Your task to perform on an android device: What's the weather going to be this weekend? Image 0: 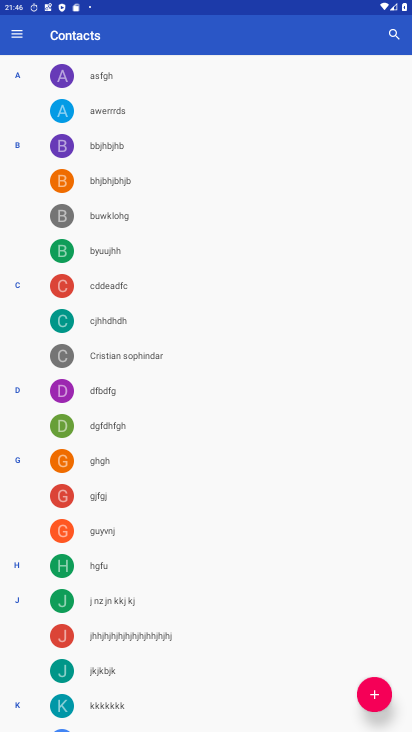
Step 0: press home button
Your task to perform on an android device: What's the weather going to be this weekend? Image 1: 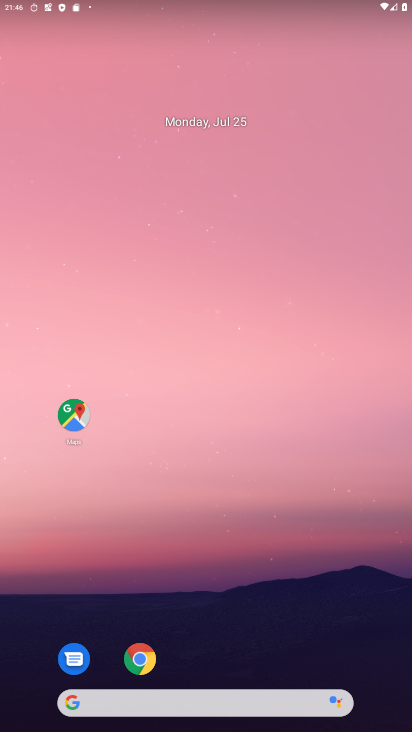
Step 1: drag from (210, 656) to (221, 247)
Your task to perform on an android device: What's the weather going to be this weekend? Image 2: 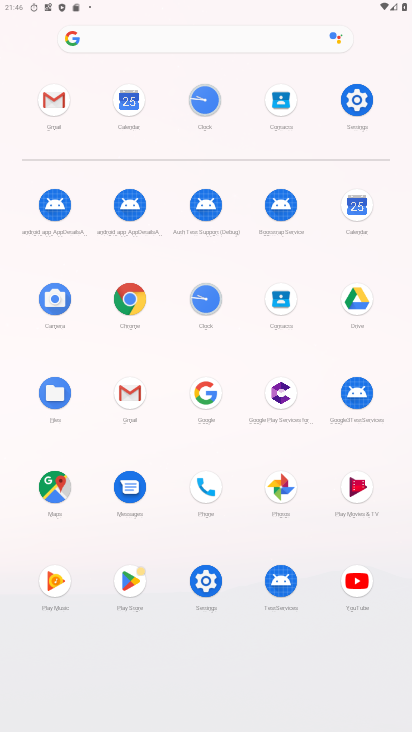
Step 2: click (200, 383)
Your task to perform on an android device: What's the weather going to be this weekend? Image 3: 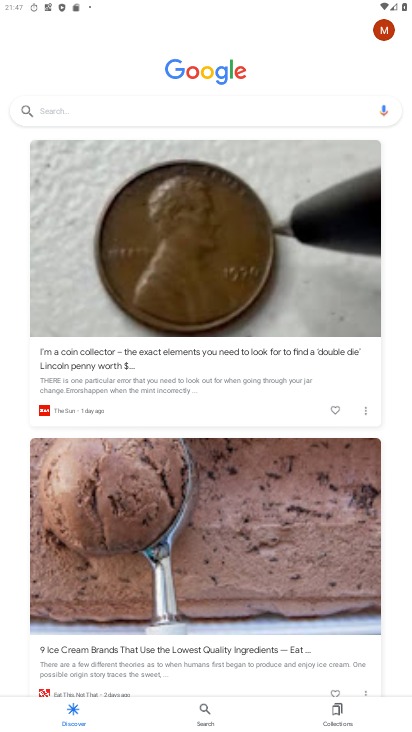
Step 3: click (167, 110)
Your task to perform on an android device: What's the weather going to be this weekend? Image 4: 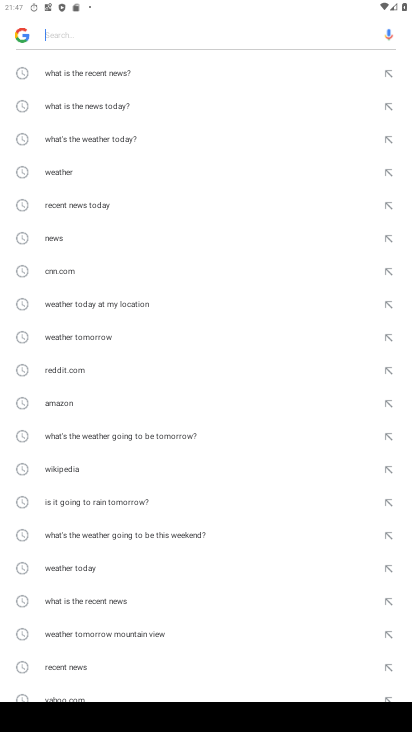
Step 4: click (106, 173)
Your task to perform on an android device: What's the weather going to be this weekend? Image 5: 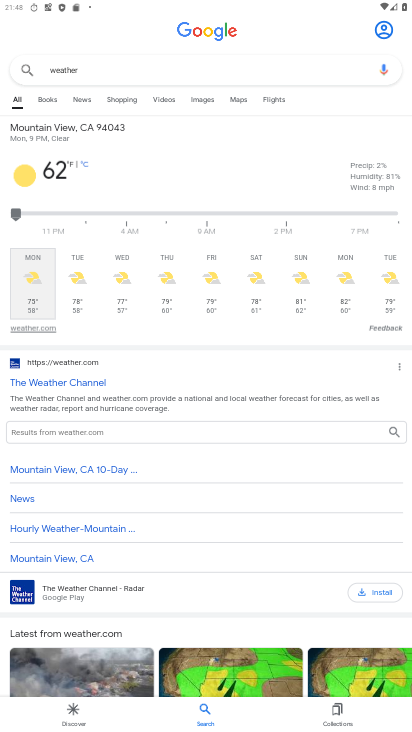
Step 5: task complete